Your task to perform on an android device: see sites visited before in the chrome app Image 0: 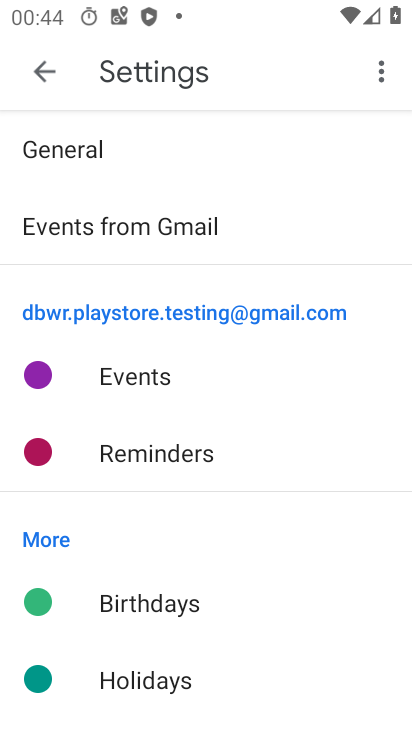
Step 0: press home button
Your task to perform on an android device: see sites visited before in the chrome app Image 1: 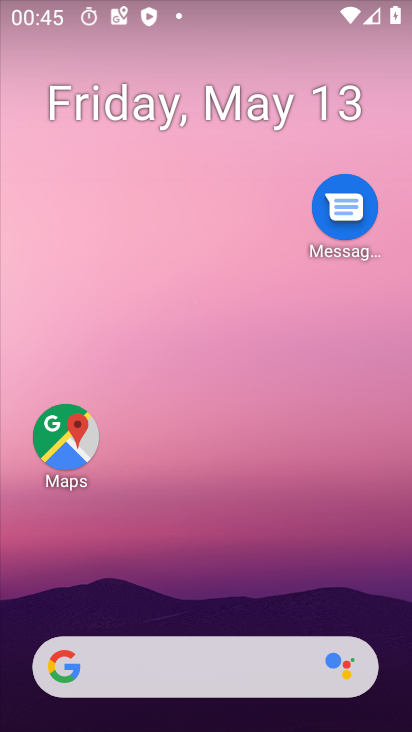
Step 1: drag from (319, 540) to (67, 0)
Your task to perform on an android device: see sites visited before in the chrome app Image 2: 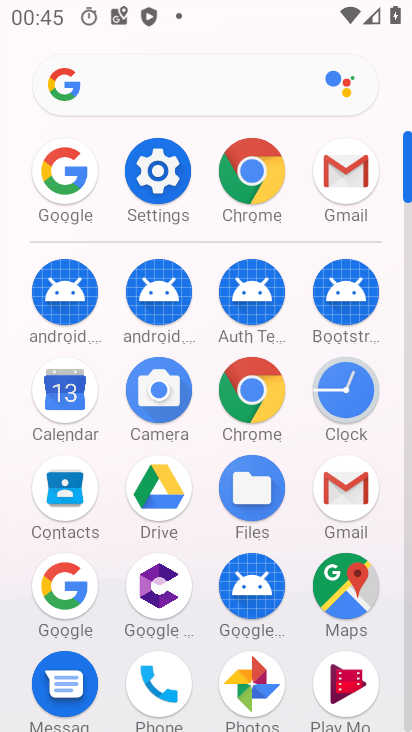
Step 2: click (232, 246)
Your task to perform on an android device: see sites visited before in the chrome app Image 3: 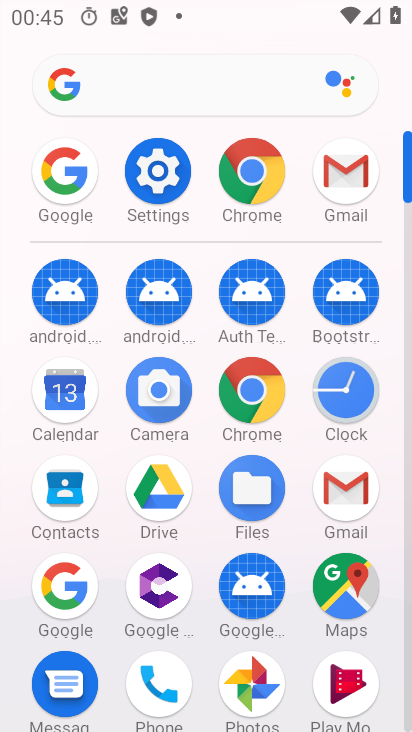
Step 3: click (241, 192)
Your task to perform on an android device: see sites visited before in the chrome app Image 4: 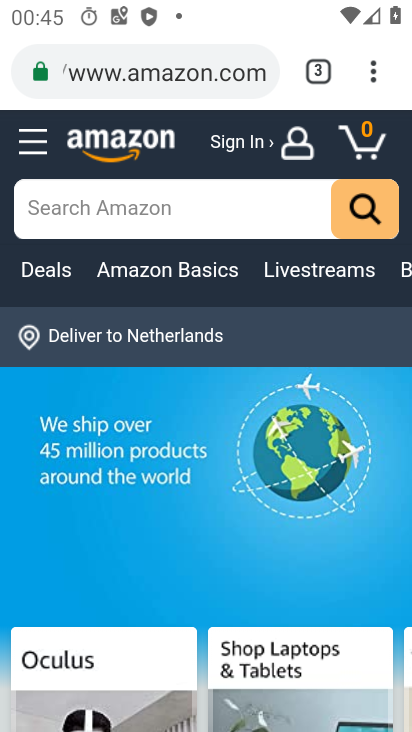
Step 4: task complete